Your task to perform on an android device: check out phone information Image 0: 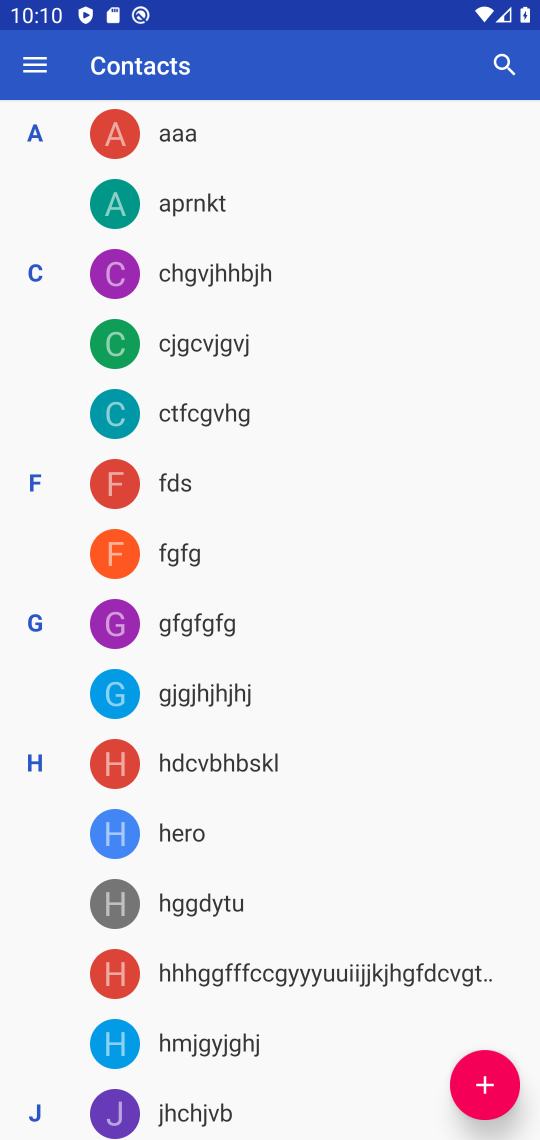
Step 0: press home button
Your task to perform on an android device: check out phone information Image 1: 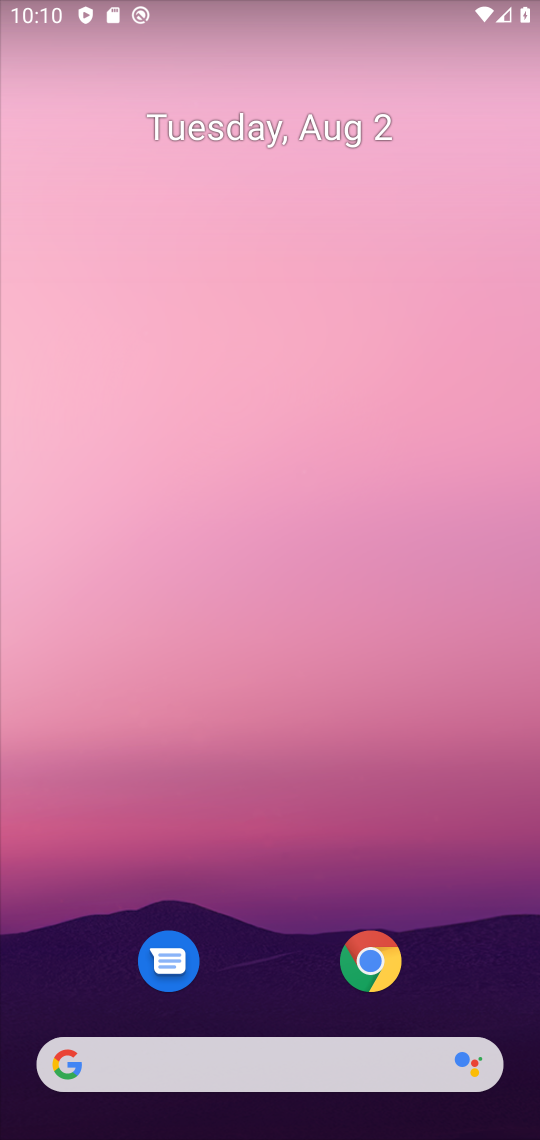
Step 1: drag from (263, 1016) to (246, 127)
Your task to perform on an android device: check out phone information Image 2: 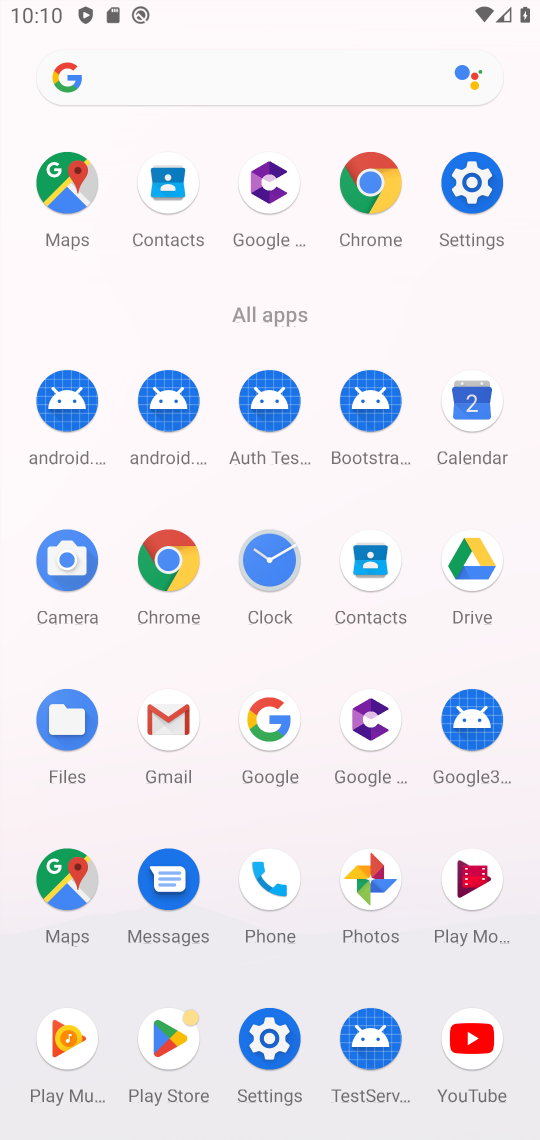
Step 2: click (465, 177)
Your task to perform on an android device: check out phone information Image 3: 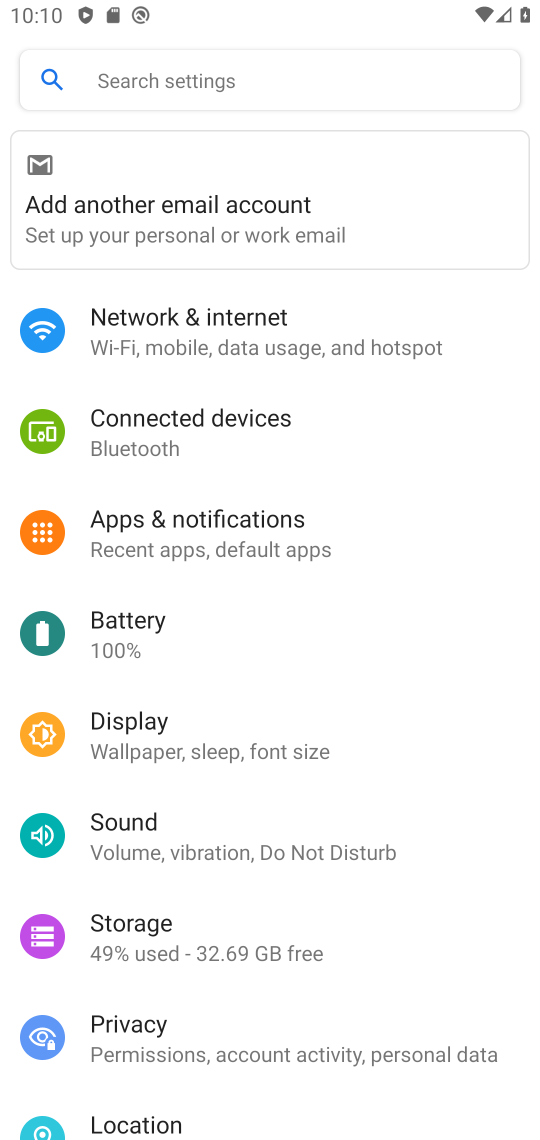
Step 3: drag from (271, 1089) to (216, 194)
Your task to perform on an android device: check out phone information Image 4: 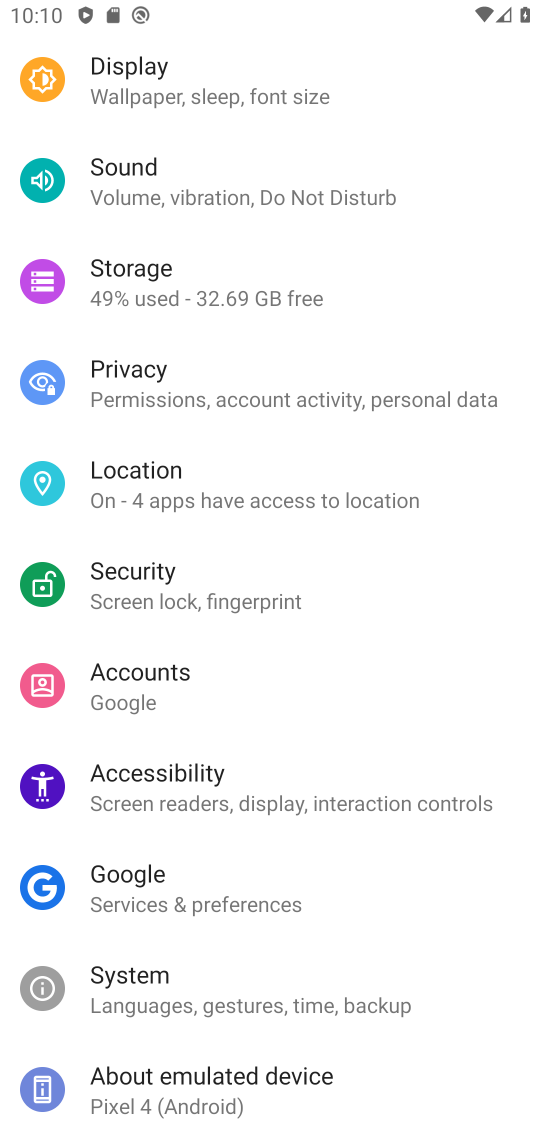
Step 4: click (277, 1096)
Your task to perform on an android device: check out phone information Image 5: 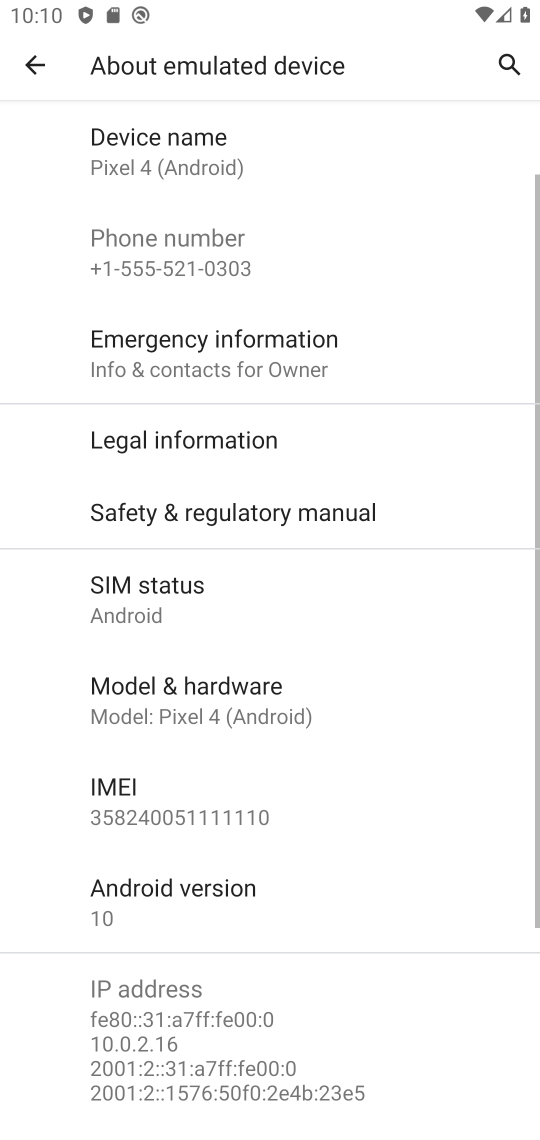
Step 5: task complete